Your task to perform on an android device: open wifi settings Image 0: 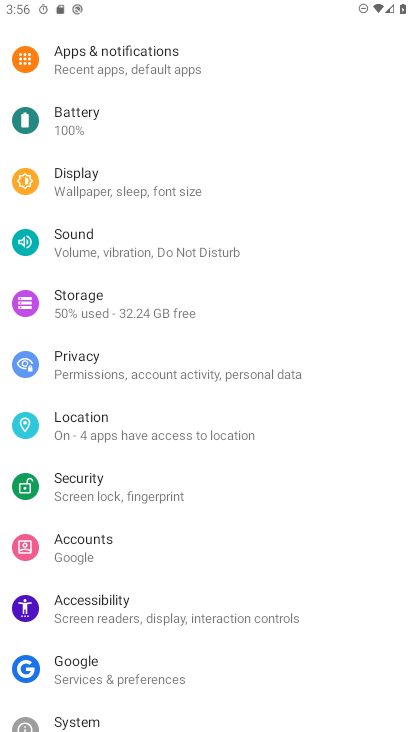
Step 0: press home button
Your task to perform on an android device: open wifi settings Image 1: 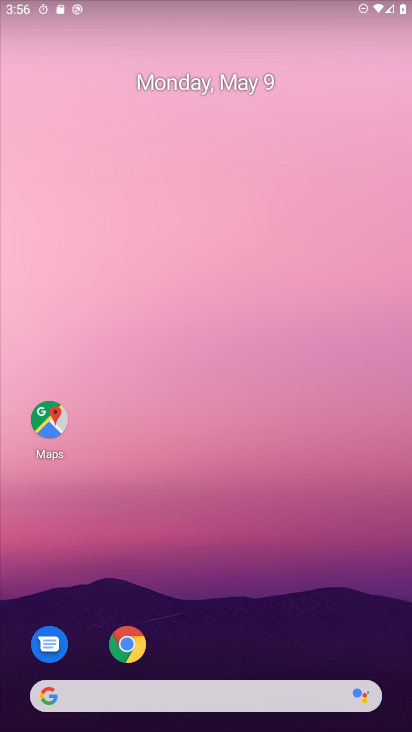
Step 1: drag from (232, 638) to (243, 97)
Your task to perform on an android device: open wifi settings Image 2: 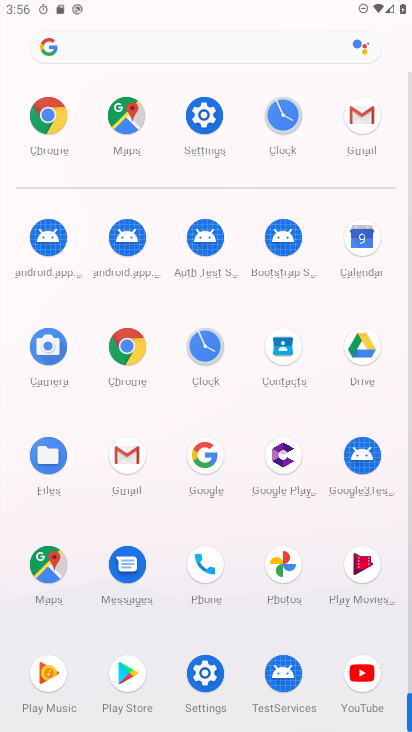
Step 2: click (201, 147)
Your task to perform on an android device: open wifi settings Image 3: 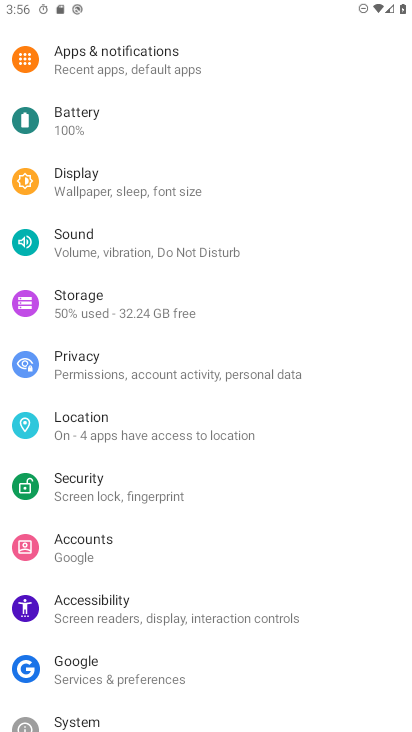
Step 3: drag from (166, 658) to (200, 190)
Your task to perform on an android device: open wifi settings Image 4: 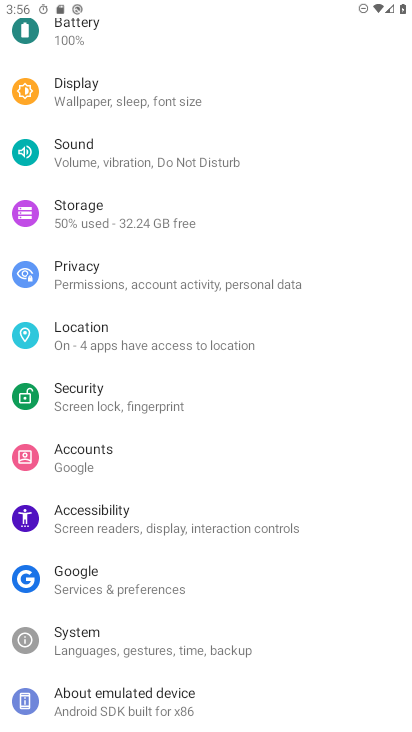
Step 4: drag from (200, 175) to (208, 615)
Your task to perform on an android device: open wifi settings Image 5: 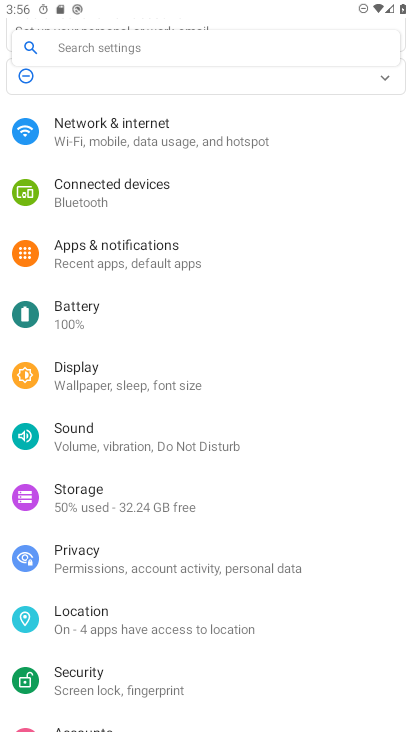
Step 5: click (107, 140)
Your task to perform on an android device: open wifi settings Image 6: 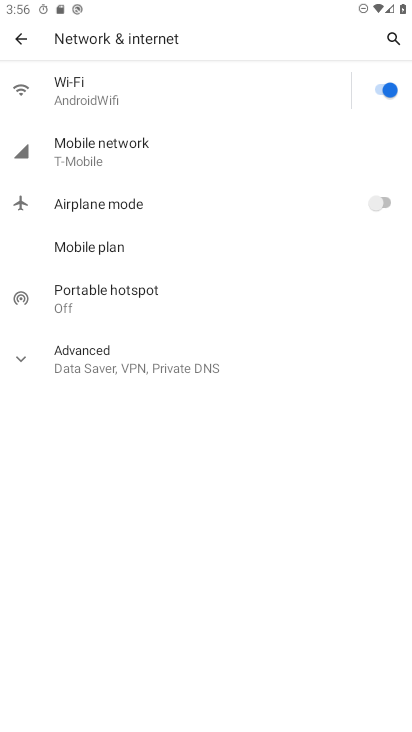
Step 6: task complete